Your task to perform on an android device: delete the emails in spam in the gmail app Image 0: 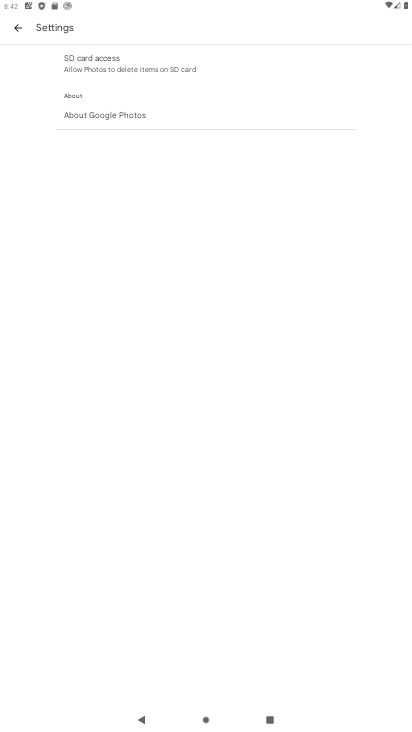
Step 0: press home button
Your task to perform on an android device: delete the emails in spam in the gmail app Image 1: 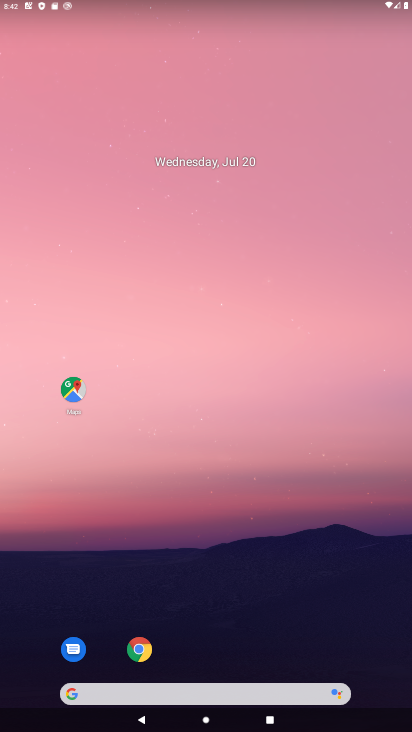
Step 1: drag from (195, 692) to (217, 148)
Your task to perform on an android device: delete the emails in spam in the gmail app Image 2: 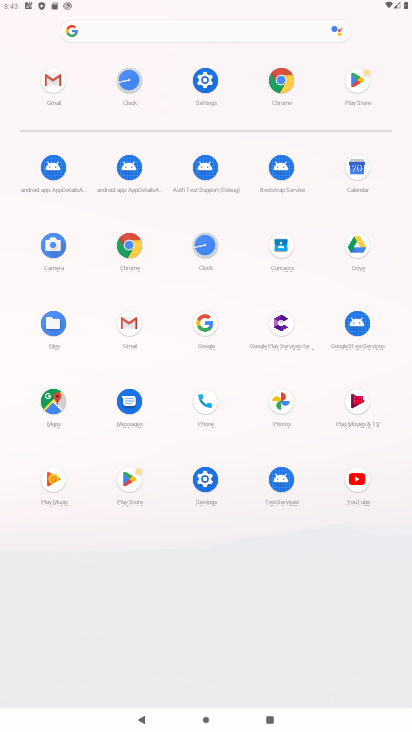
Step 2: click (52, 78)
Your task to perform on an android device: delete the emails in spam in the gmail app Image 3: 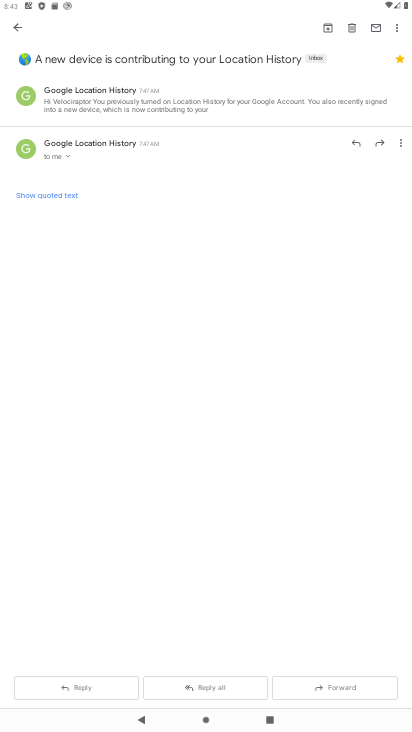
Step 3: press back button
Your task to perform on an android device: delete the emails in spam in the gmail app Image 4: 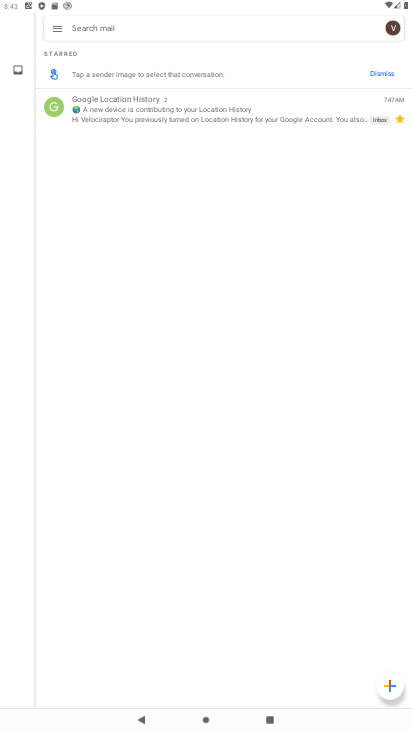
Step 4: click (57, 28)
Your task to perform on an android device: delete the emails in spam in the gmail app Image 5: 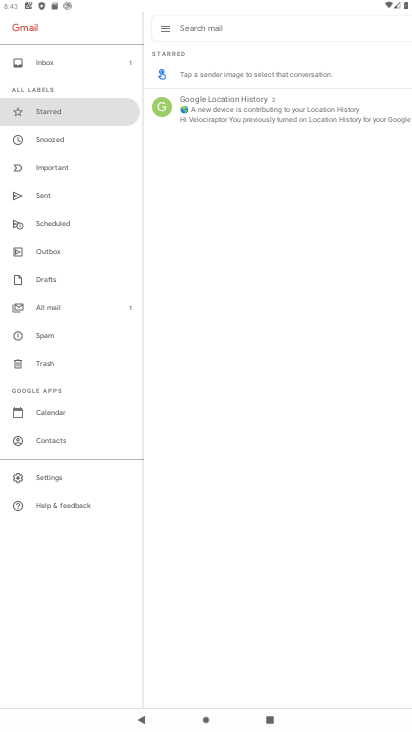
Step 5: click (60, 333)
Your task to perform on an android device: delete the emails in spam in the gmail app Image 6: 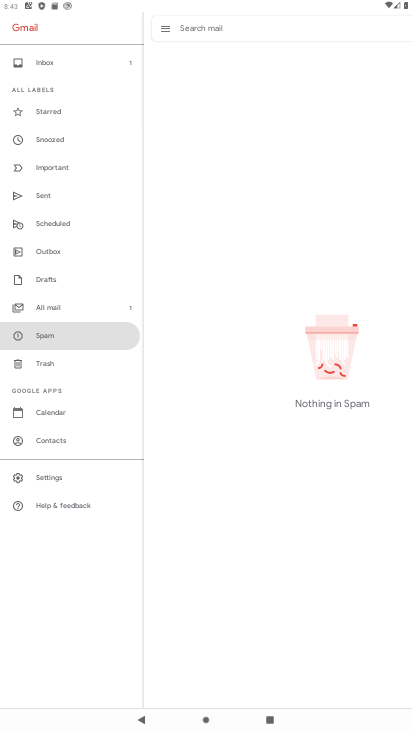
Step 6: task complete